Your task to perform on an android device: Go to Yahoo.com Image 0: 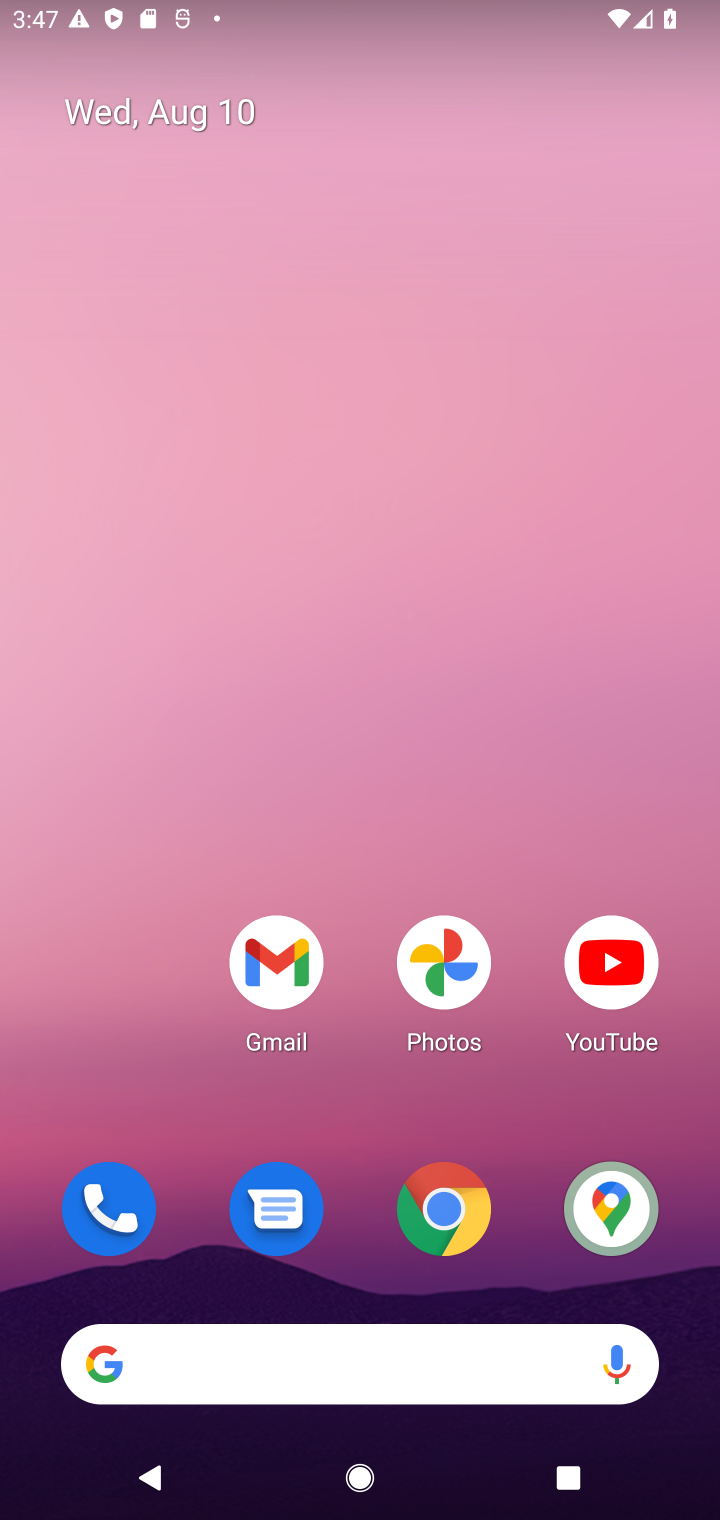
Step 0: click (442, 1234)
Your task to perform on an android device: Go to Yahoo.com Image 1: 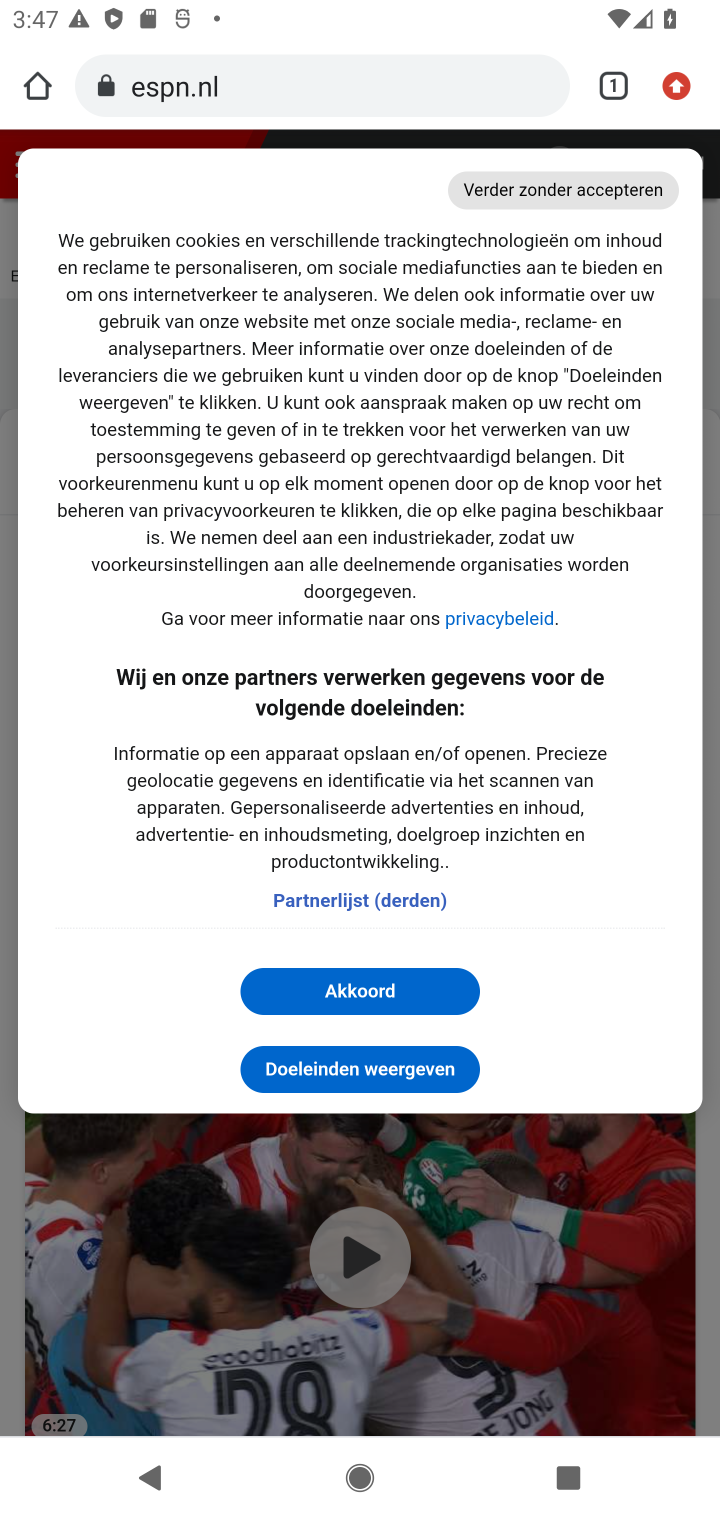
Step 1: click (23, 94)
Your task to perform on an android device: Go to Yahoo.com Image 2: 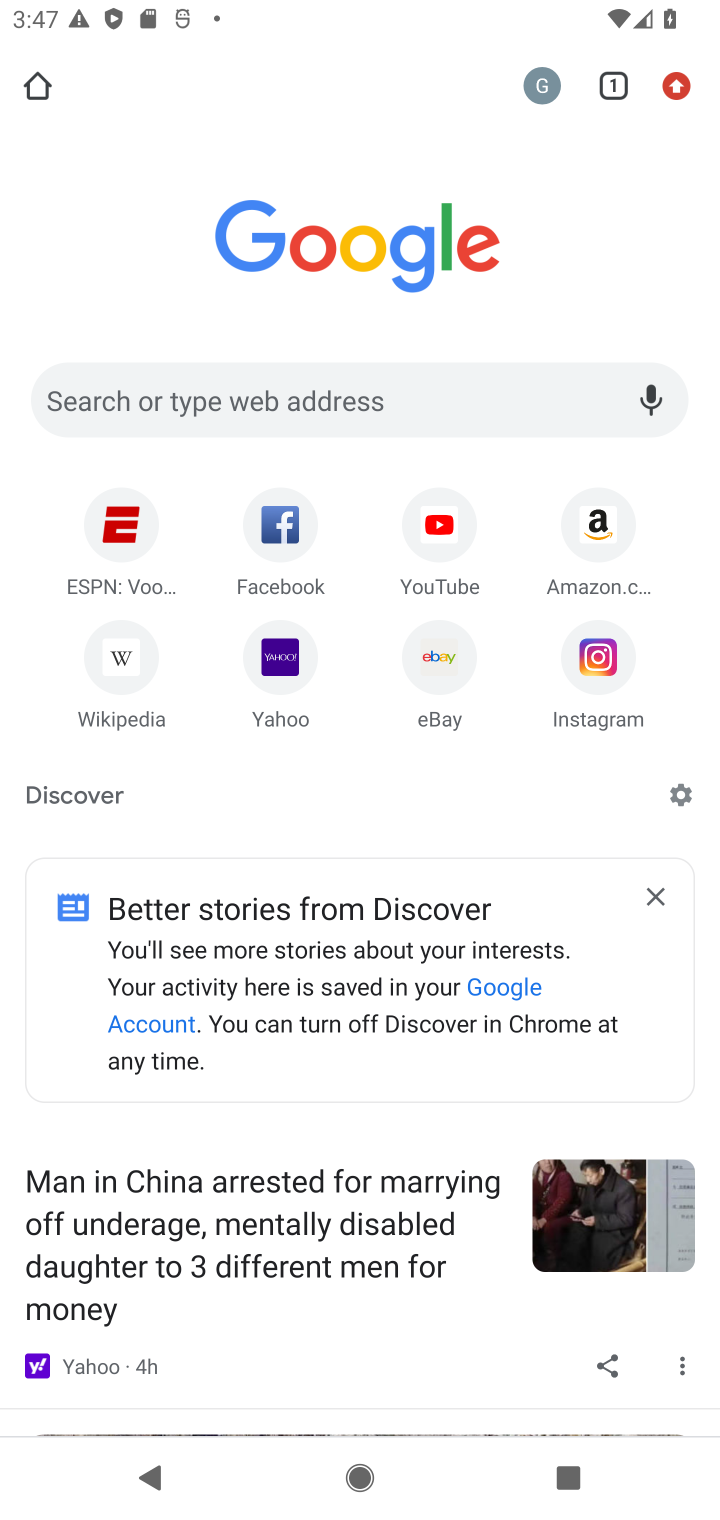
Step 2: click (292, 679)
Your task to perform on an android device: Go to Yahoo.com Image 3: 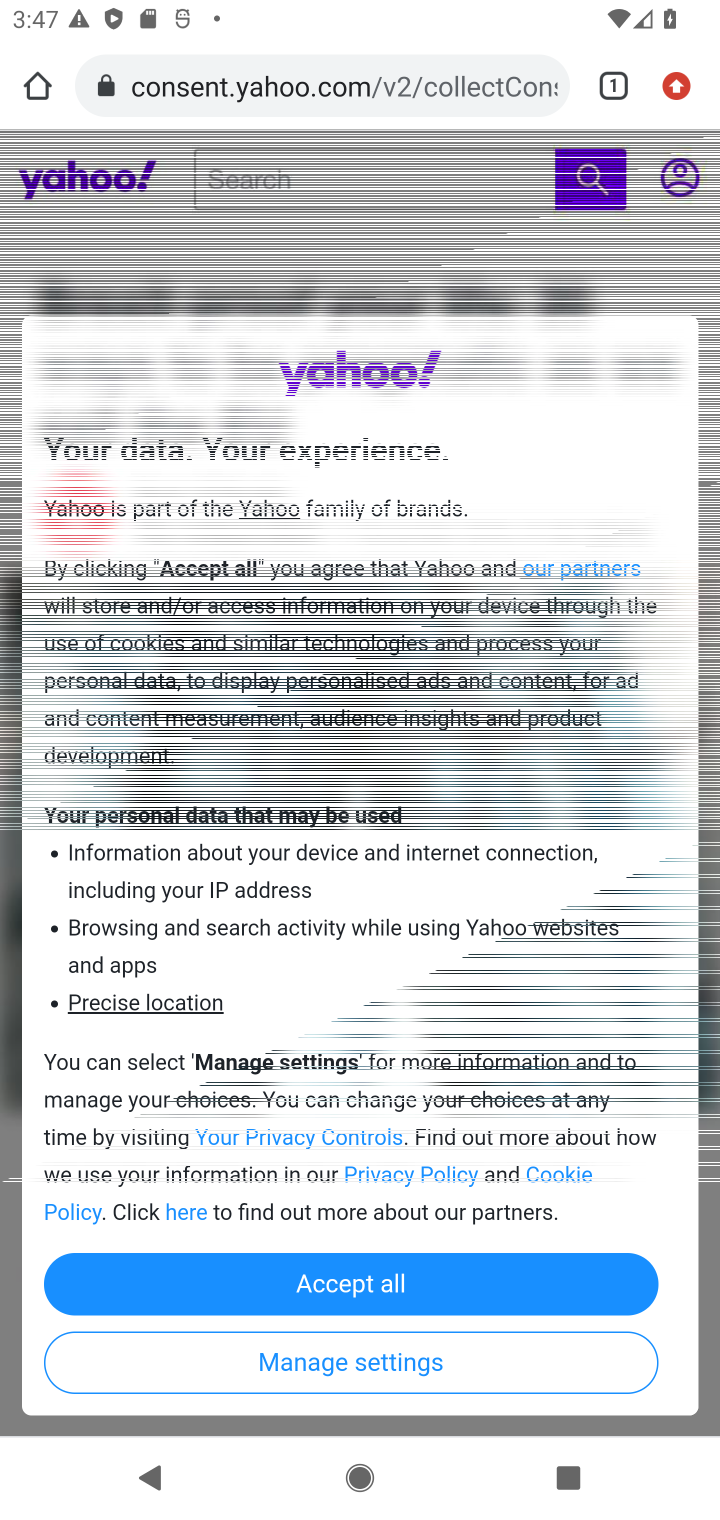
Step 3: task complete